Your task to perform on an android device: What's on my calendar today? Image 0: 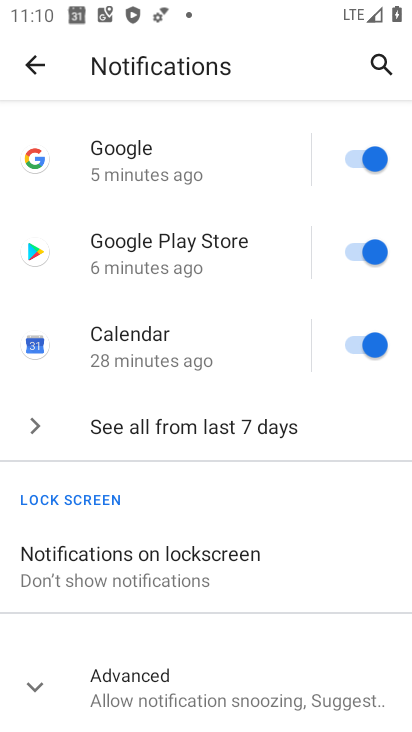
Step 0: press home button
Your task to perform on an android device: What's on my calendar today? Image 1: 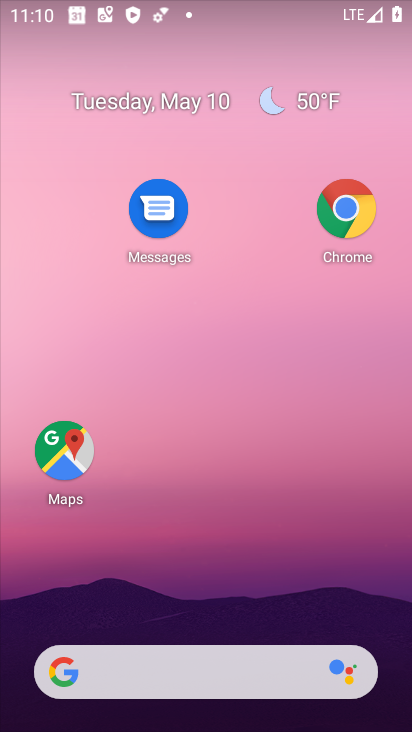
Step 1: drag from (212, 610) to (201, 38)
Your task to perform on an android device: What's on my calendar today? Image 2: 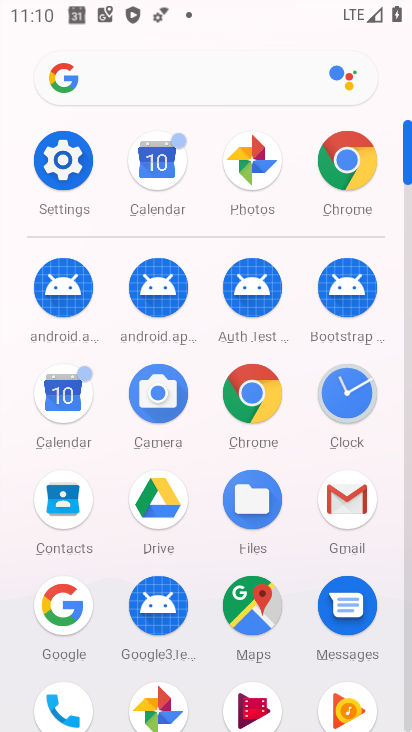
Step 2: click (58, 408)
Your task to perform on an android device: What's on my calendar today? Image 3: 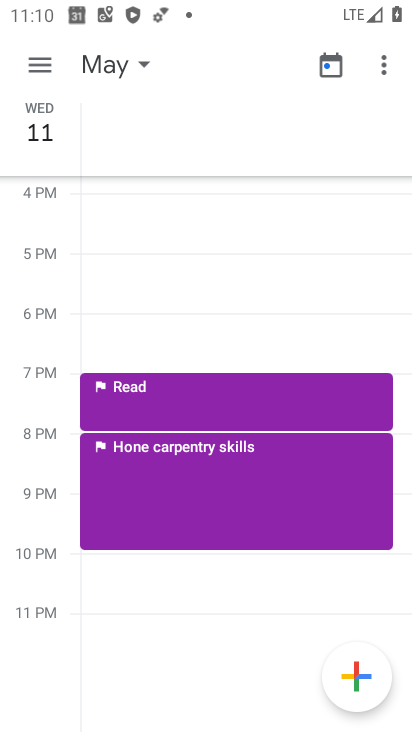
Step 3: click (331, 66)
Your task to perform on an android device: What's on my calendar today? Image 4: 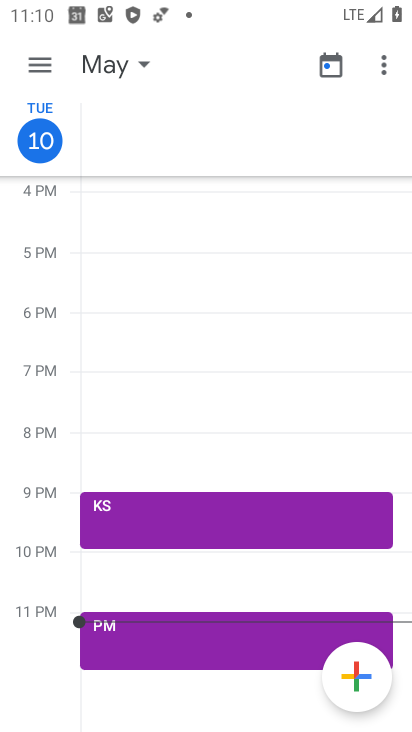
Step 4: click (329, 55)
Your task to perform on an android device: What's on my calendar today? Image 5: 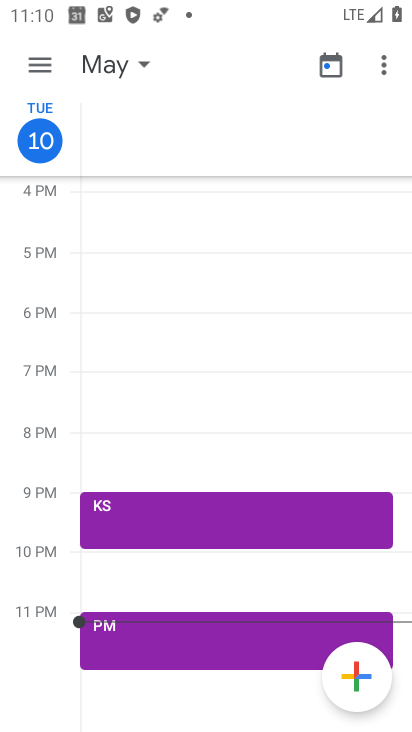
Step 5: click (330, 57)
Your task to perform on an android device: What's on my calendar today? Image 6: 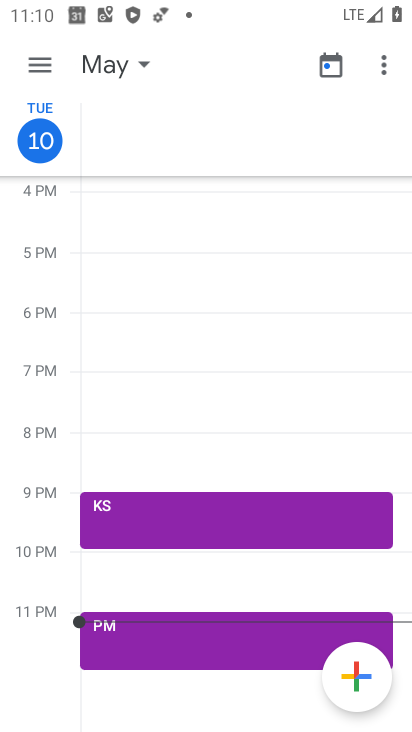
Step 6: click (152, 70)
Your task to perform on an android device: What's on my calendar today? Image 7: 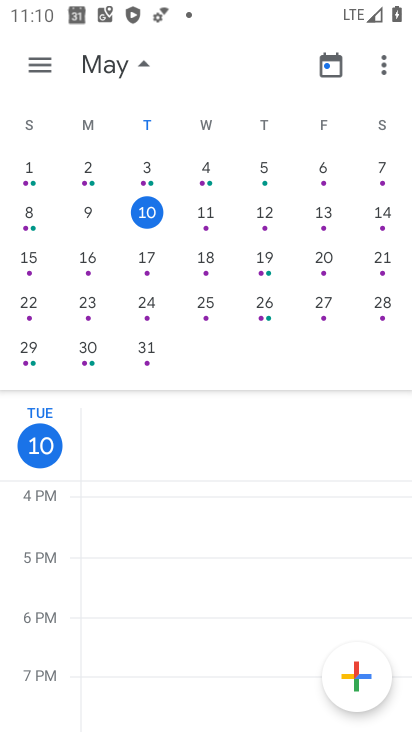
Step 7: click (150, 205)
Your task to perform on an android device: What's on my calendar today? Image 8: 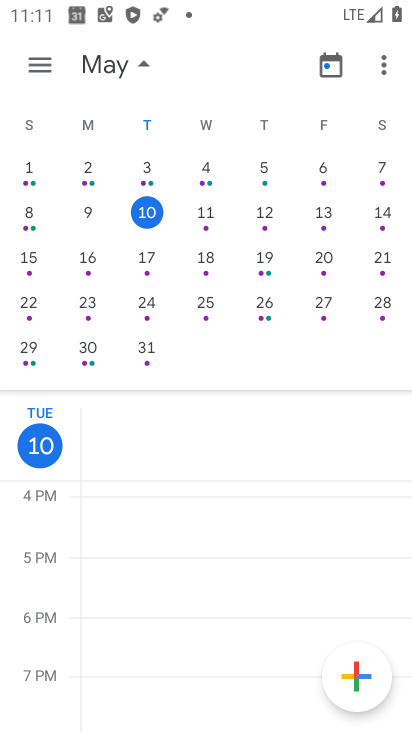
Step 8: task complete